Your task to perform on an android device: open device folders in google photos Image 0: 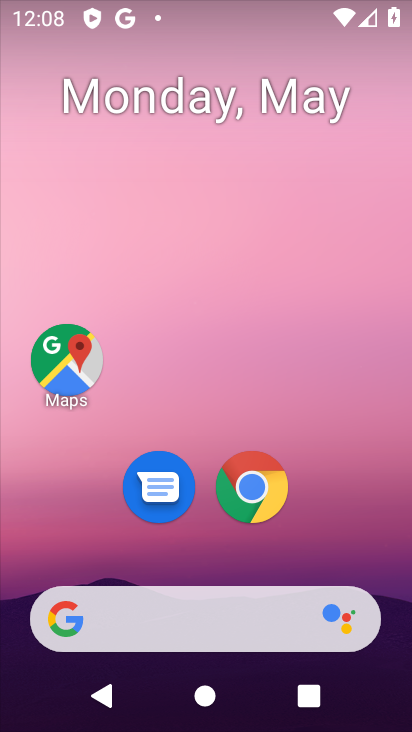
Step 0: drag from (366, 522) to (277, 16)
Your task to perform on an android device: open device folders in google photos Image 1: 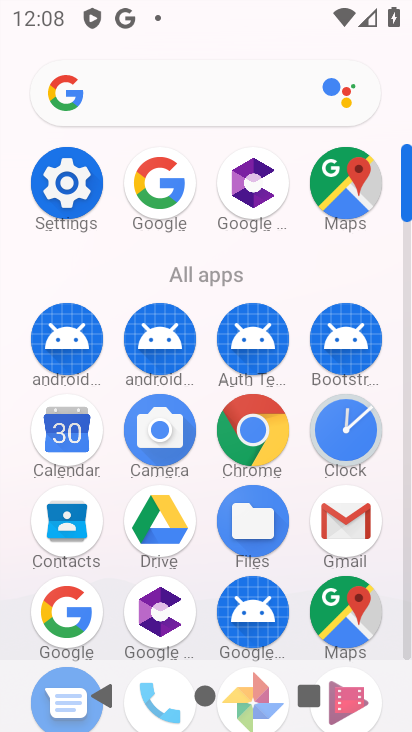
Step 1: drag from (307, 486) to (315, 203)
Your task to perform on an android device: open device folders in google photos Image 2: 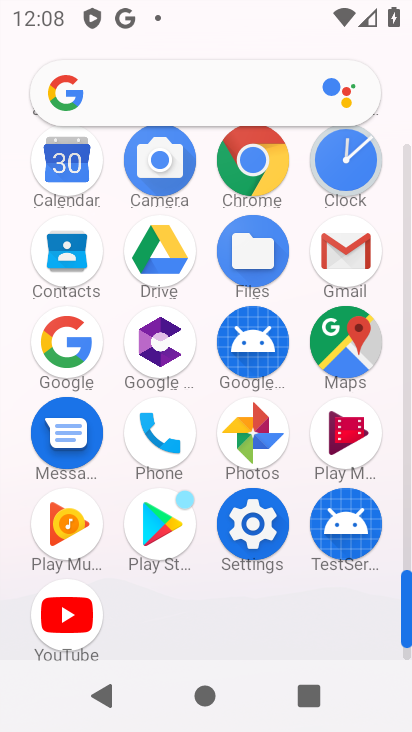
Step 2: click (253, 431)
Your task to perform on an android device: open device folders in google photos Image 3: 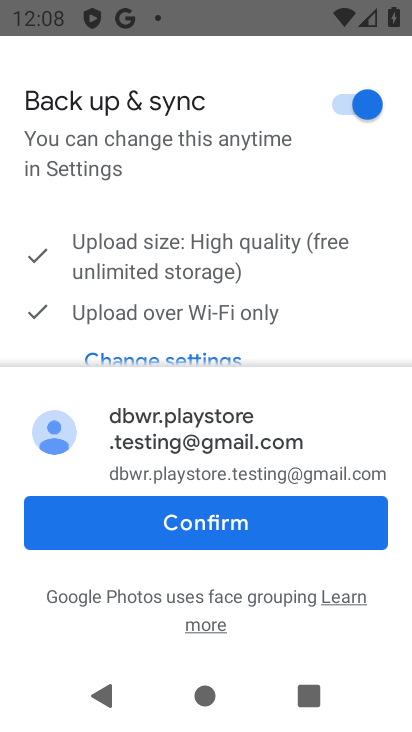
Step 3: click (201, 526)
Your task to perform on an android device: open device folders in google photos Image 4: 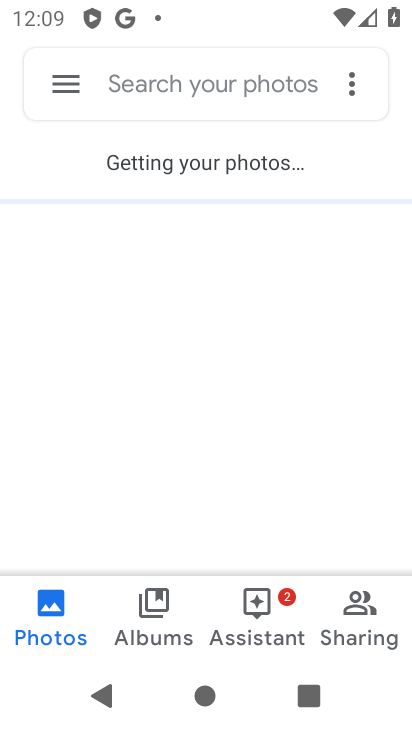
Step 4: click (61, 82)
Your task to perform on an android device: open device folders in google photos Image 5: 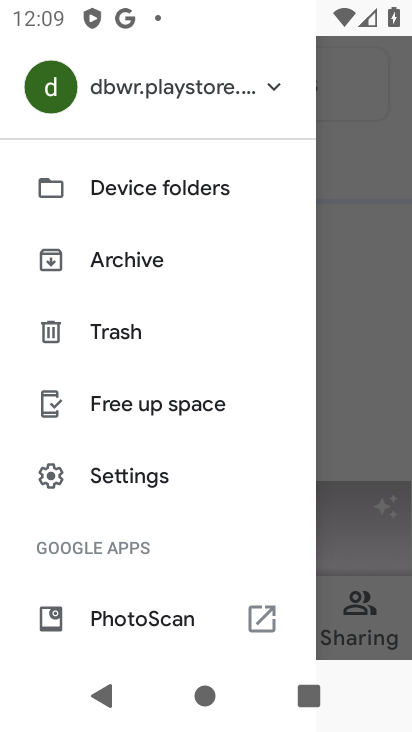
Step 5: click (165, 180)
Your task to perform on an android device: open device folders in google photos Image 6: 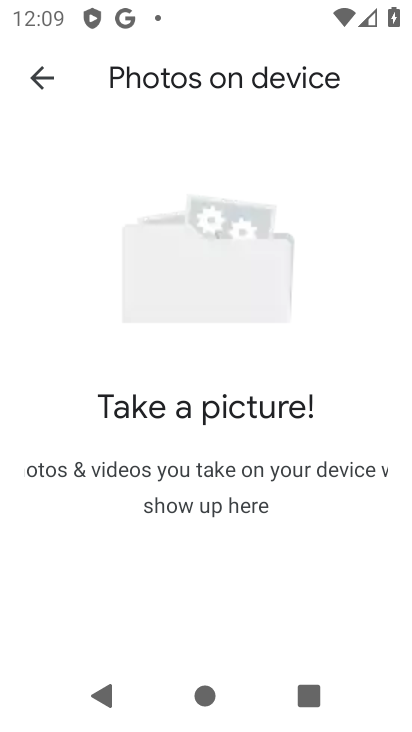
Step 6: task complete